Your task to perform on an android device: Open notification settings Image 0: 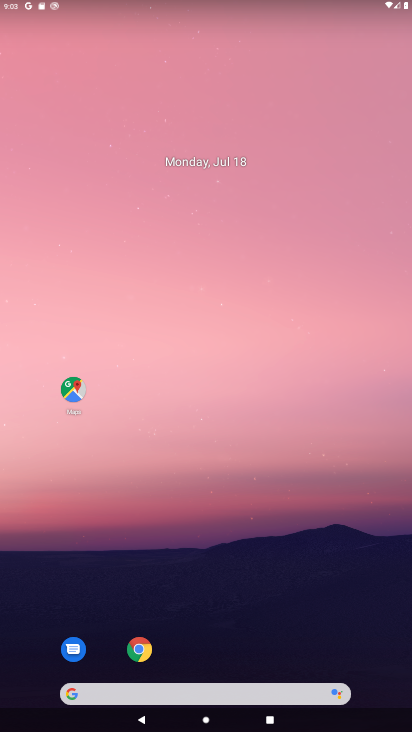
Step 0: drag from (225, 681) to (263, 181)
Your task to perform on an android device: Open notification settings Image 1: 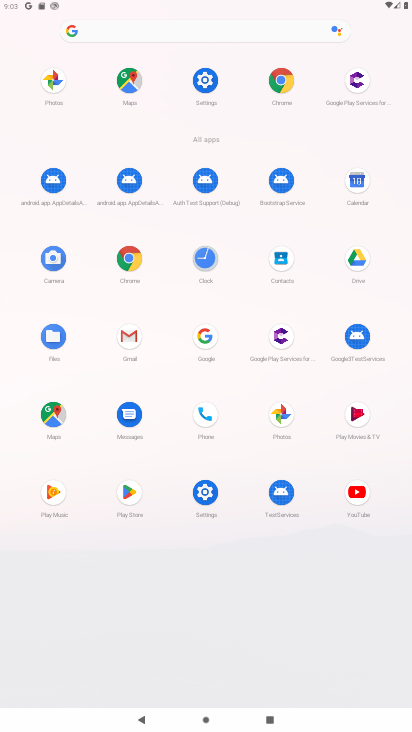
Step 1: click (210, 86)
Your task to perform on an android device: Open notification settings Image 2: 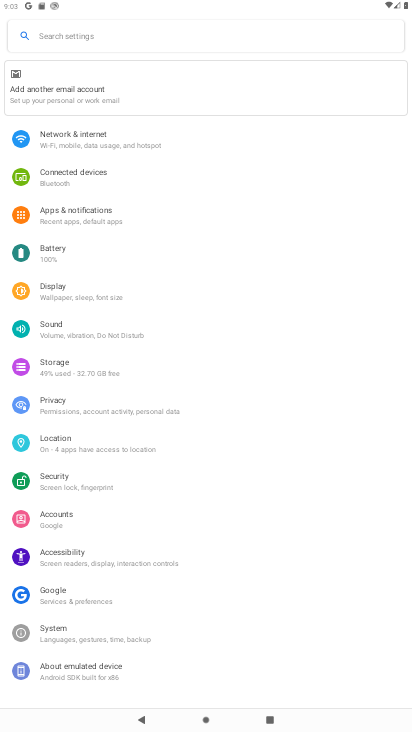
Step 2: click (65, 217)
Your task to perform on an android device: Open notification settings Image 3: 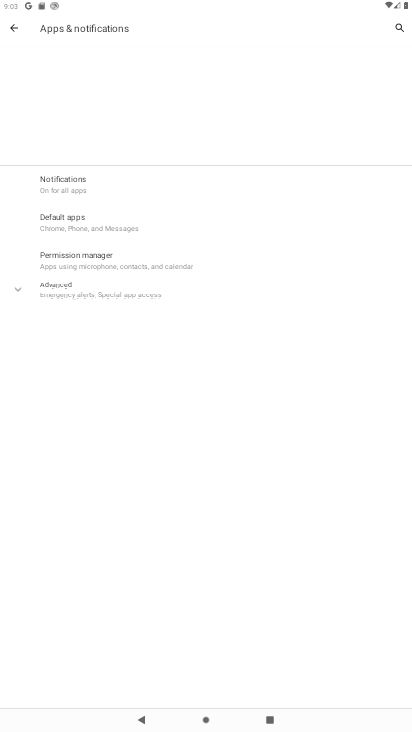
Step 3: click (42, 269)
Your task to perform on an android device: Open notification settings Image 4: 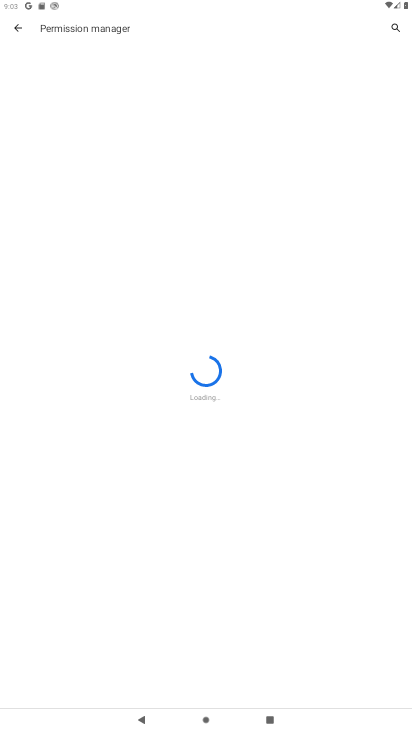
Step 4: click (21, 31)
Your task to perform on an android device: Open notification settings Image 5: 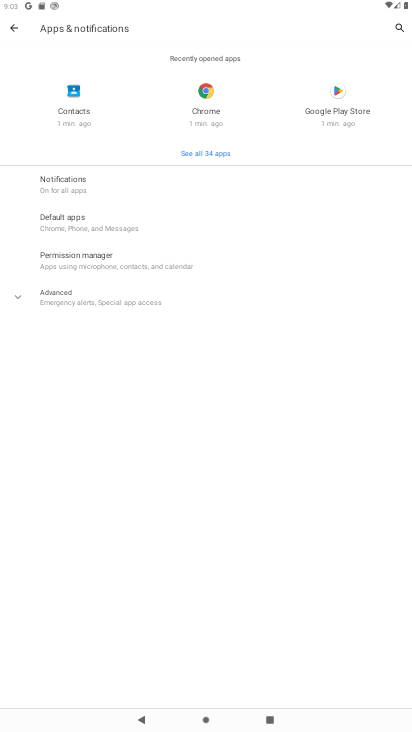
Step 5: task complete